Your task to perform on an android device: Open the calendar app, open the side menu, and click the "Day" option Image 0: 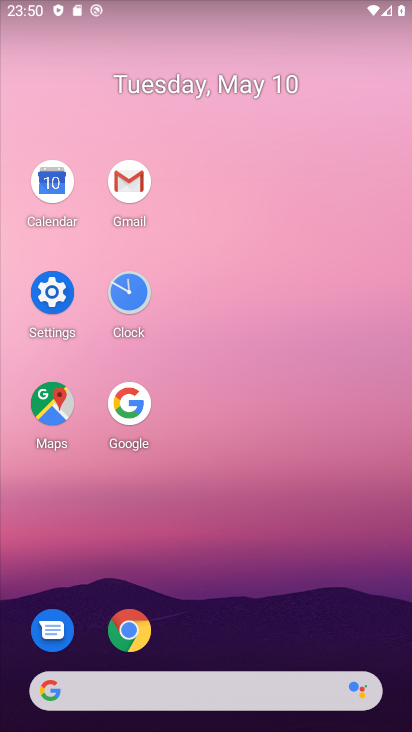
Step 0: click (56, 180)
Your task to perform on an android device: Open the calendar app, open the side menu, and click the "Day" option Image 1: 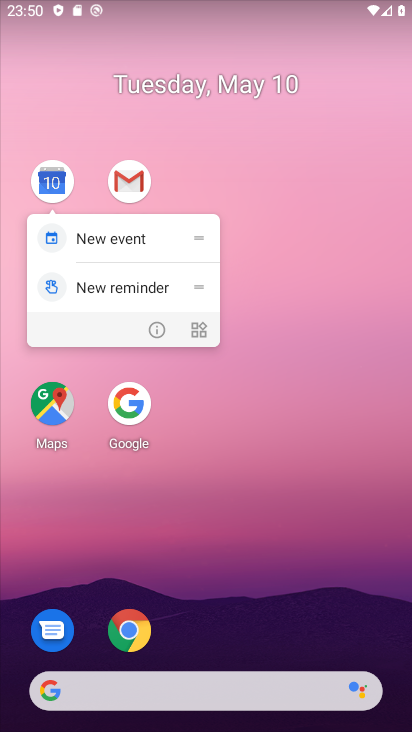
Step 1: click (55, 181)
Your task to perform on an android device: Open the calendar app, open the side menu, and click the "Day" option Image 2: 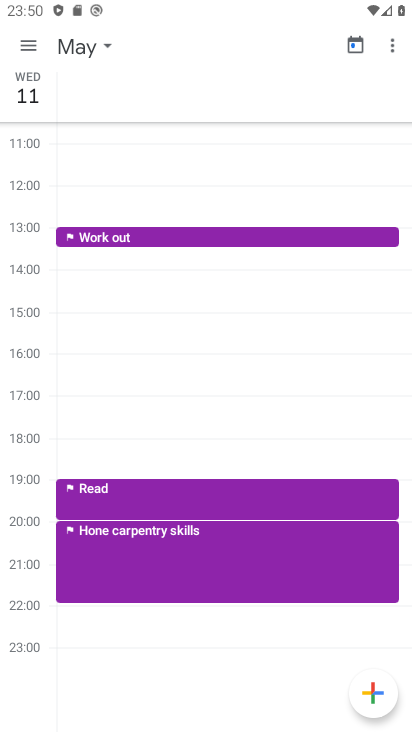
Step 2: click (24, 40)
Your task to perform on an android device: Open the calendar app, open the side menu, and click the "Day" option Image 3: 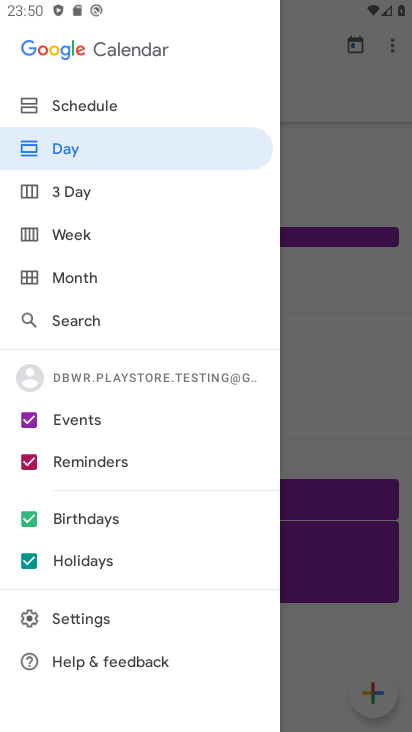
Step 3: click (79, 140)
Your task to perform on an android device: Open the calendar app, open the side menu, and click the "Day" option Image 4: 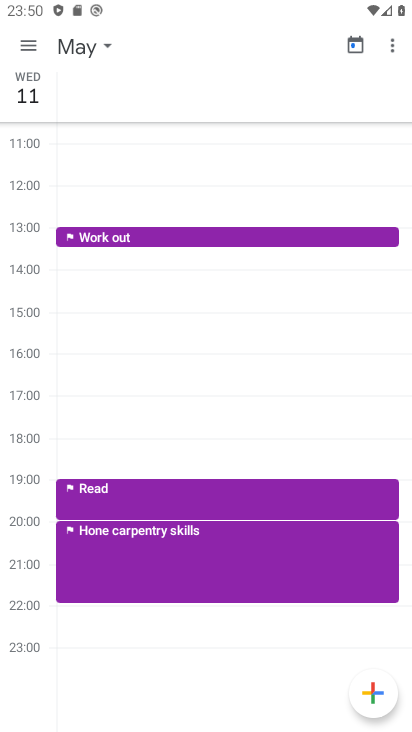
Step 4: click (31, 48)
Your task to perform on an android device: Open the calendar app, open the side menu, and click the "Day" option Image 5: 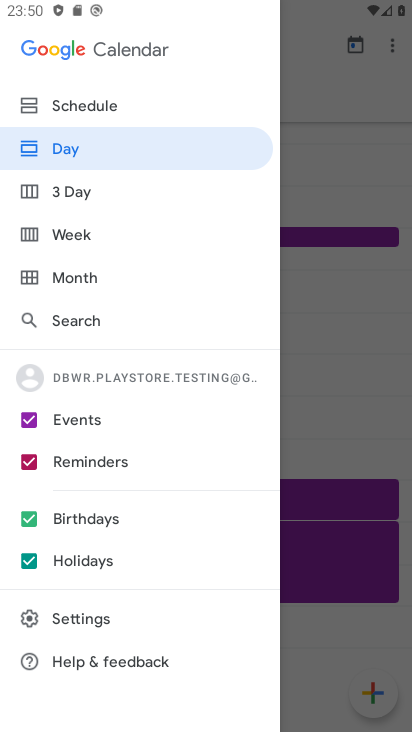
Step 5: click (100, 148)
Your task to perform on an android device: Open the calendar app, open the side menu, and click the "Day" option Image 6: 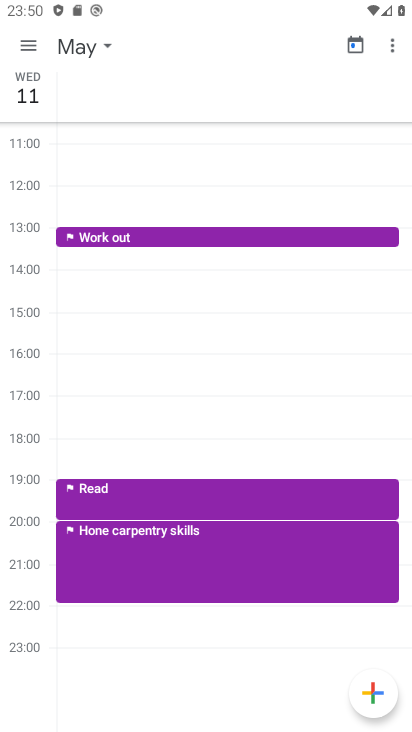
Step 6: task complete